Your task to perform on an android device: show emergency info Image 0: 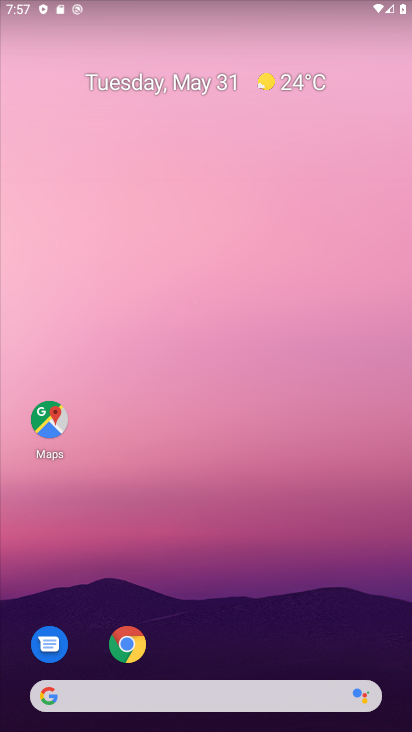
Step 0: drag from (316, 514) to (316, 123)
Your task to perform on an android device: show emergency info Image 1: 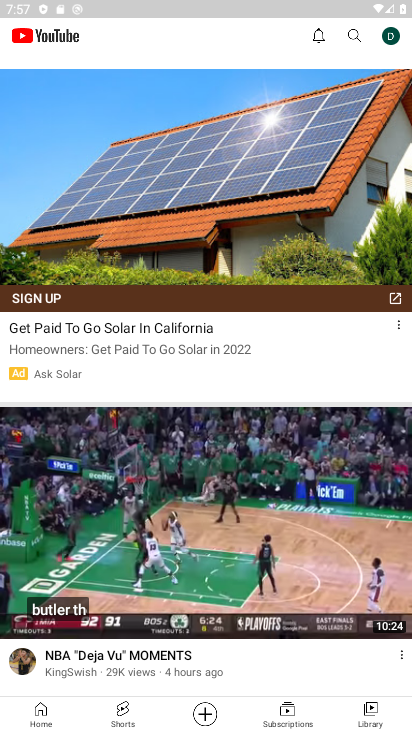
Step 1: press home button
Your task to perform on an android device: show emergency info Image 2: 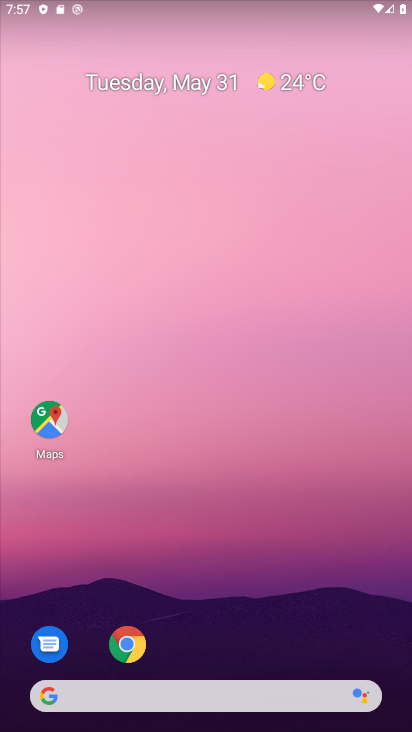
Step 2: drag from (338, 615) to (289, 153)
Your task to perform on an android device: show emergency info Image 3: 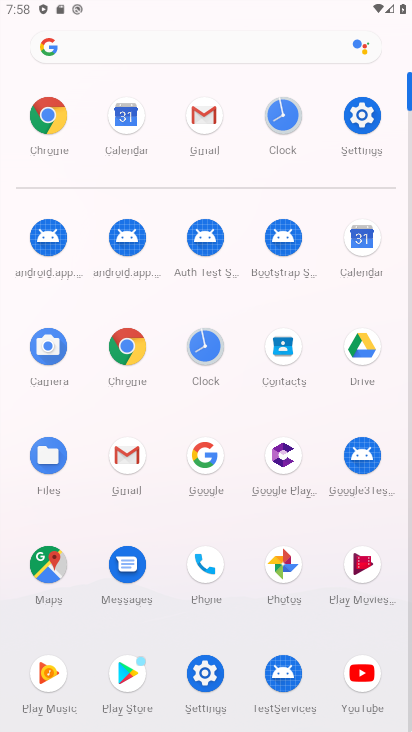
Step 3: click (366, 125)
Your task to perform on an android device: show emergency info Image 4: 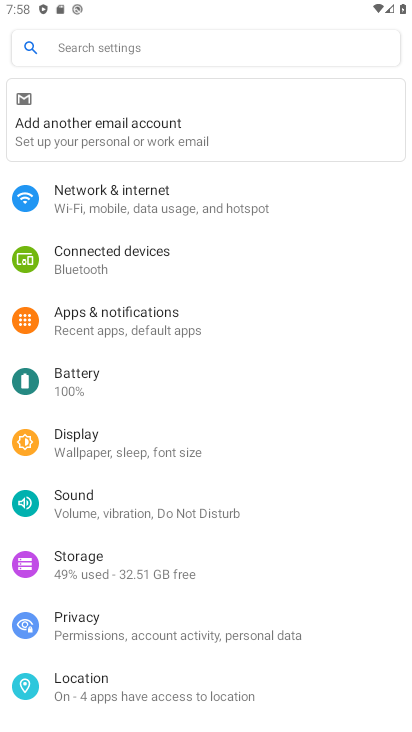
Step 4: drag from (182, 601) to (221, 348)
Your task to perform on an android device: show emergency info Image 5: 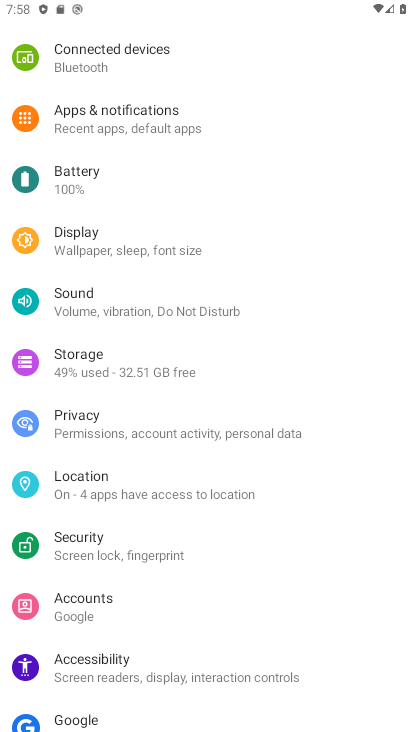
Step 5: drag from (214, 595) to (235, 349)
Your task to perform on an android device: show emergency info Image 6: 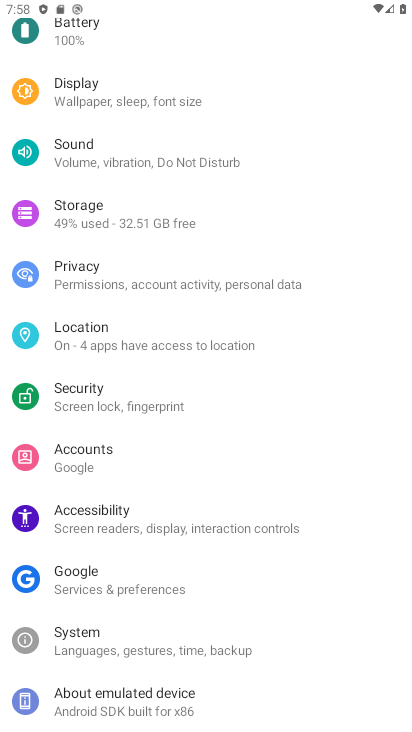
Step 6: drag from (161, 619) to (216, 298)
Your task to perform on an android device: show emergency info Image 7: 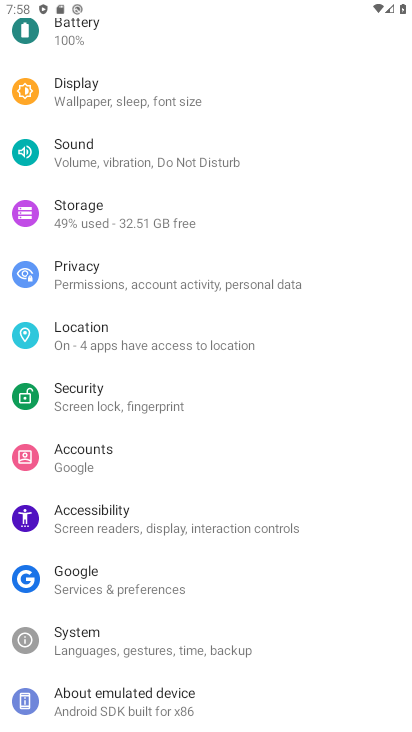
Step 7: click (167, 695)
Your task to perform on an android device: show emergency info Image 8: 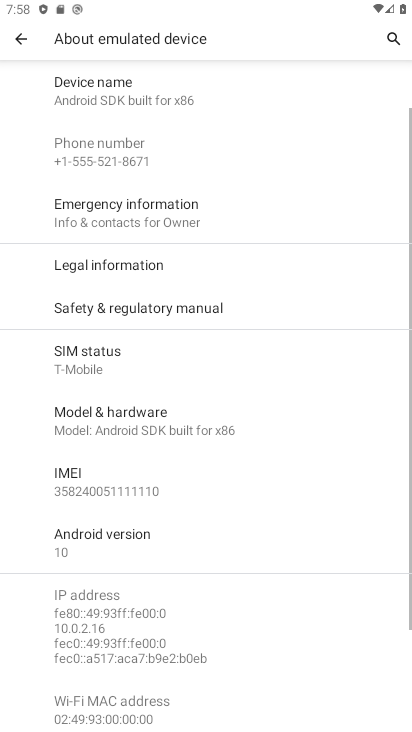
Step 8: click (188, 216)
Your task to perform on an android device: show emergency info Image 9: 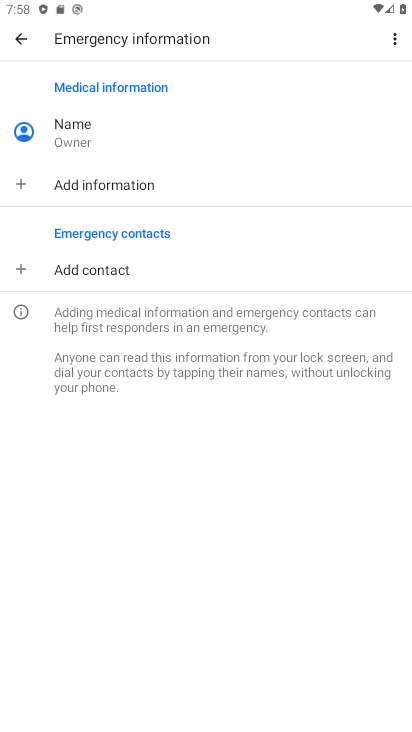
Step 9: task complete